Your task to perform on an android device: turn on showing notifications on the lock screen Image 0: 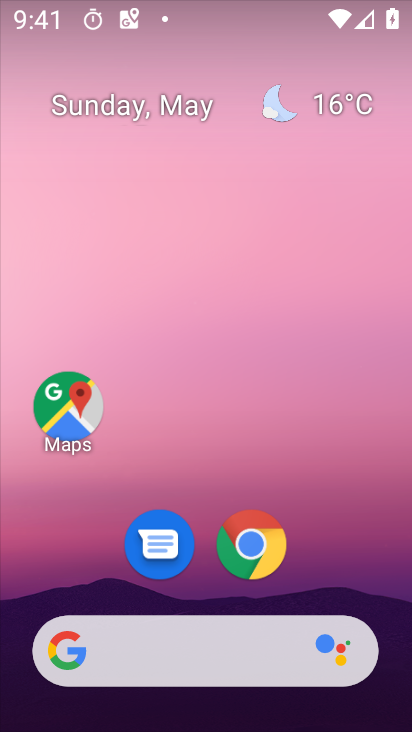
Step 0: drag from (317, 578) to (203, 15)
Your task to perform on an android device: turn on showing notifications on the lock screen Image 1: 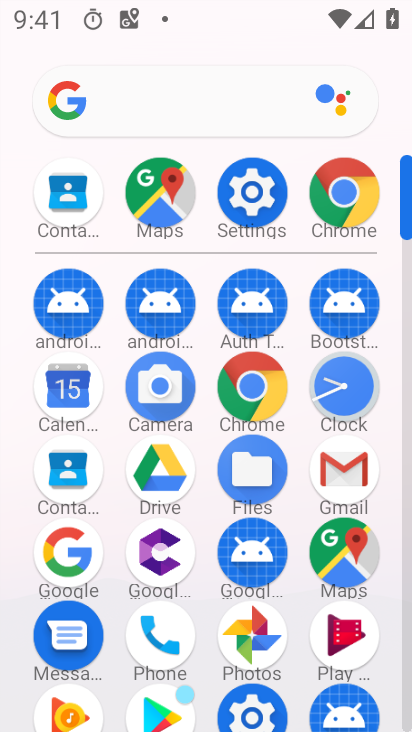
Step 1: click (248, 197)
Your task to perform on an android device: turn on showing notifications on the lock screen Image 2: 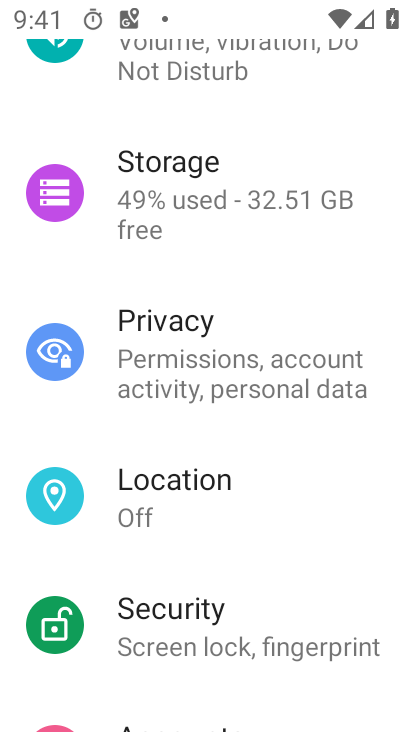
Step 2: drag from (194, 258) to (173, 649)
Your task to perform on an android device: turn on showing notifications on the lock screen Image 3: 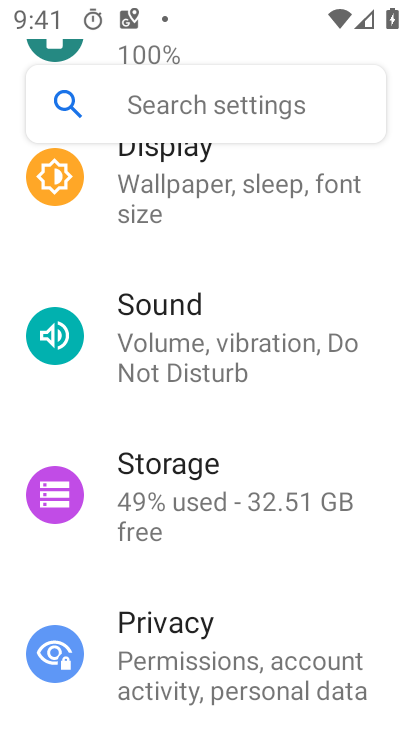
Step 3: drag from (201, 237) to (221, 642)
Your task to perform on an android device: turn on showing notifications on the lock screen Image 4: 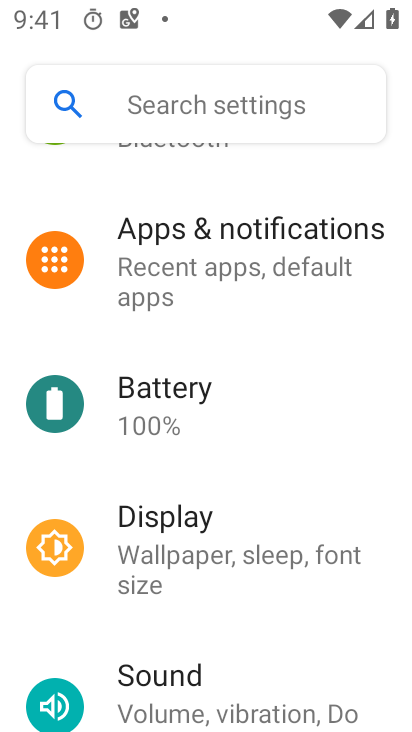
Step 4: click (180, 276)
Your task to perform on an android device: turn on showing notifications on the lock screen Image 5: 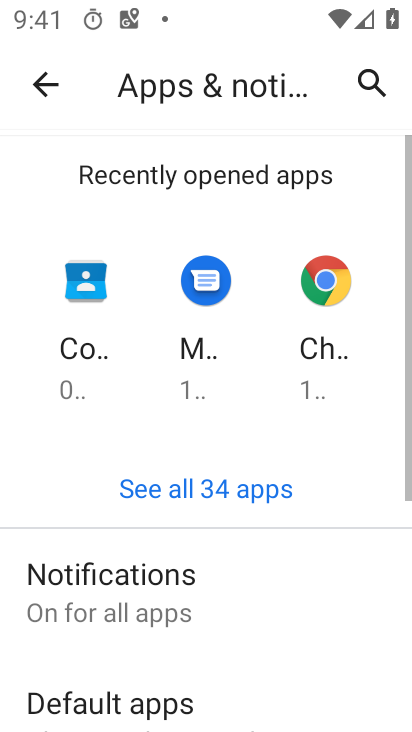
Step 5: click (135, 611)
Your task to perform on an android device: turn on showing notifications on the lock screen Image 6: 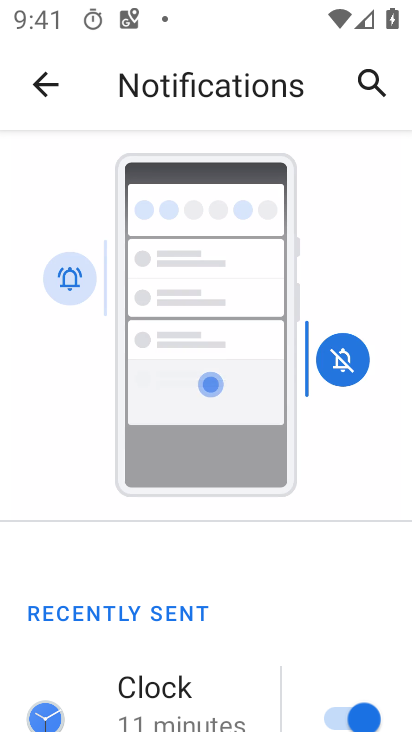
Step 6: drag from (192, 529) to (190, 420)
Your task to perform on an android device: turn on showing notifications on the lock screen Image 7: 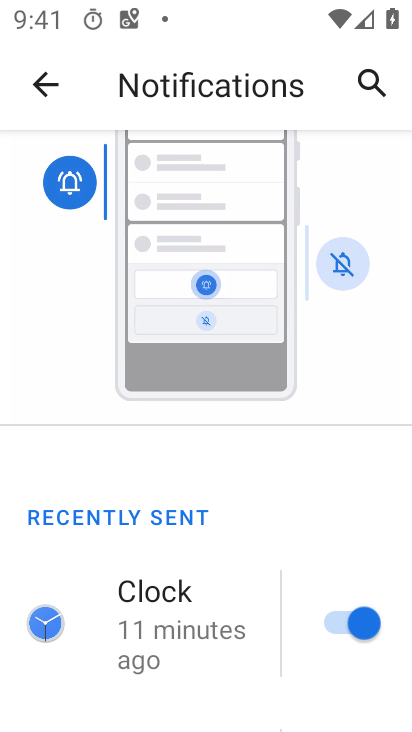
Step 7: drag from (199, 687) to (238, 298)
Your task to perform on an android device: turn on showing notifications on the lock screen Image 8: 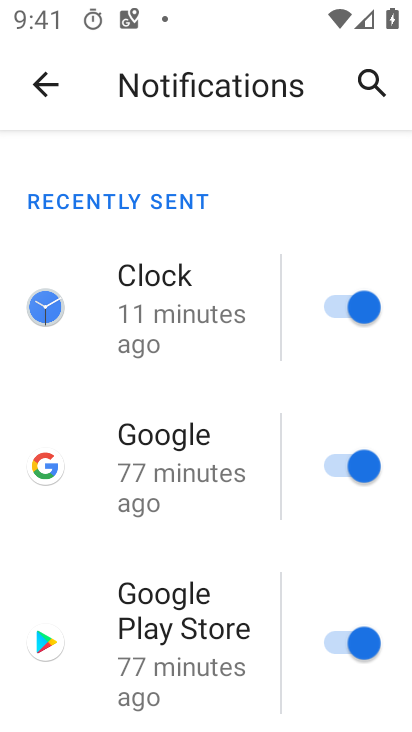
Step 8: drag from (211, 644) to (244, 264)
Your task to perform on an android device: turn on showing notifications on the lock screen Image 9: 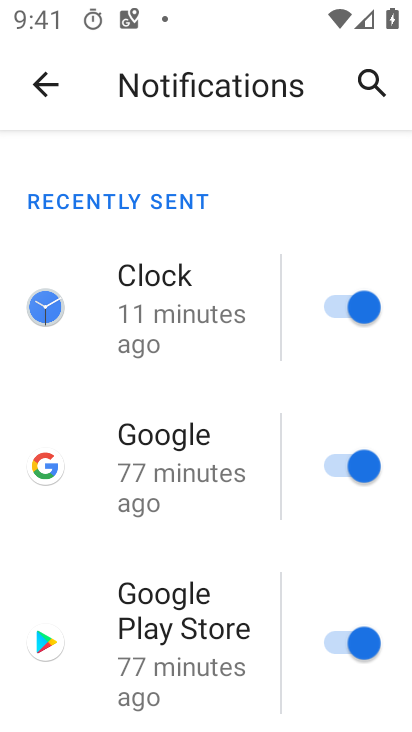
Step 9: drag from (238, 696) to (211, 321)
Your task to perform on an android device: turn on showing notifications on the lock screen Image 10: 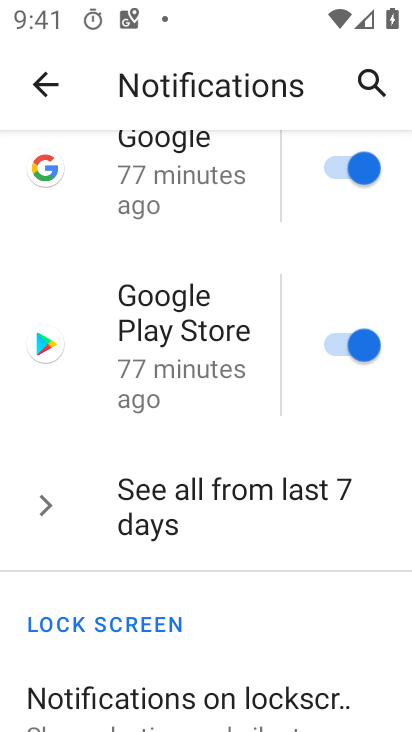
Step 10: drag from (205, 670) to (167, 277)
Your task to perform on an android device: turn on showing notifications on the lock screen Image 11: 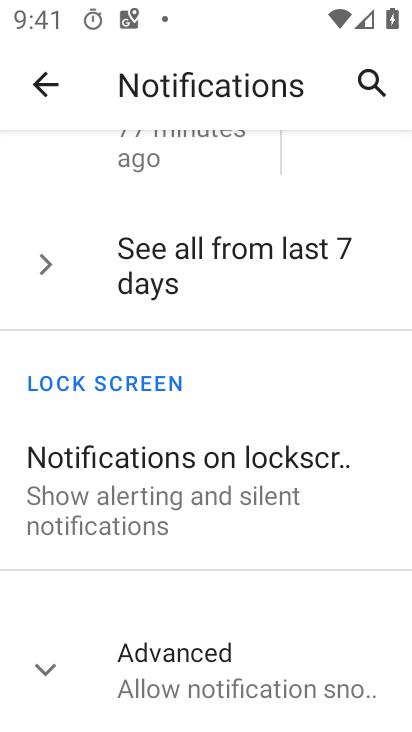
Step 11: click (161, 525)
Your task to perform on an android device: turn on showing notifications on the lock screen Image 12: 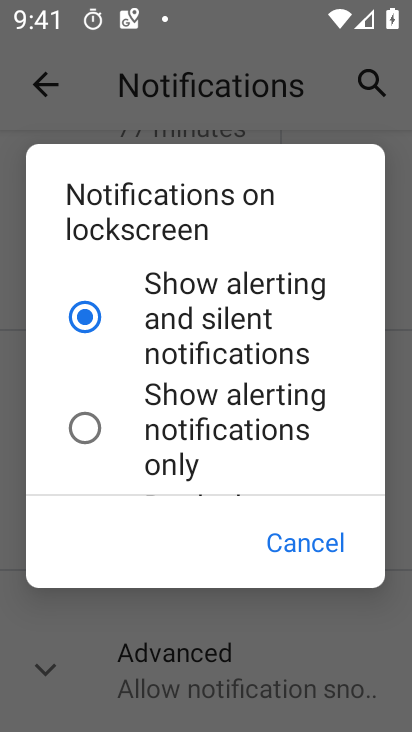
Step 12: click (87, 433)
Your task to perform on an android device: turn on showing notifications on the lock screen Image 13: 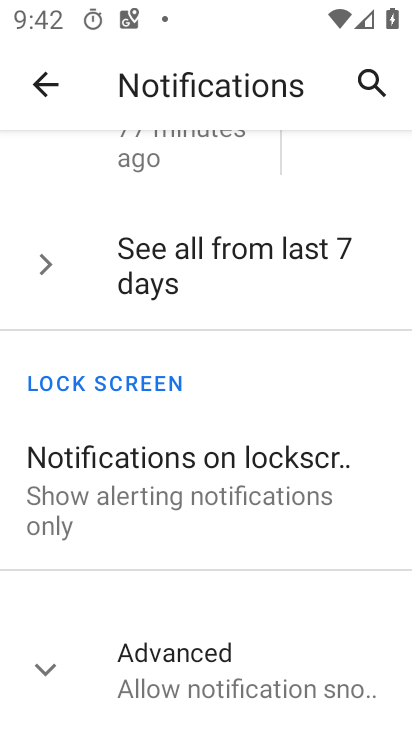
Step 13: task complete